Your task to perform on an android device: Go to eBay Image 0: 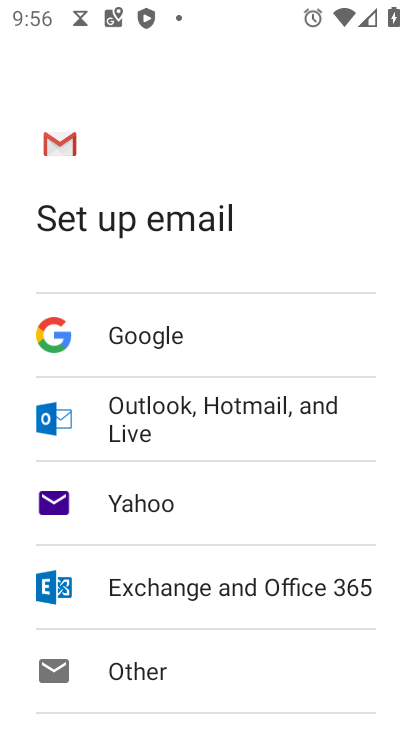
Step 0: press back button
Your task to perform on an android device: Go to eBay Image 1: 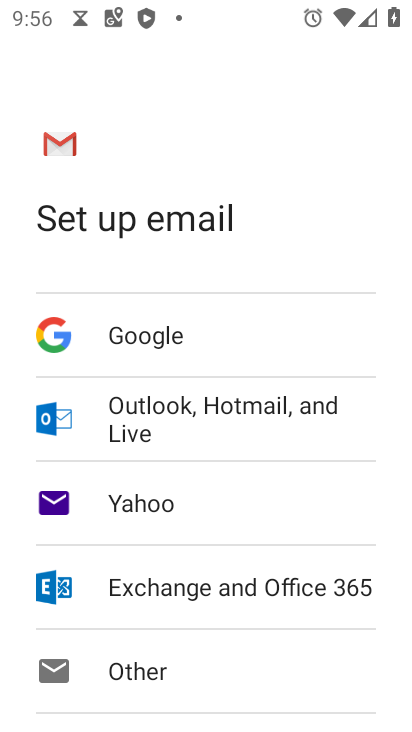
Step 1: press back button
Your task to perform on an android device: Go to eBay Image 2: 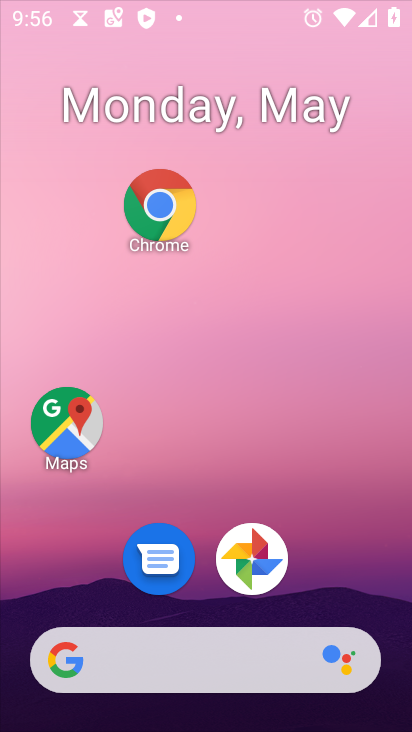
Step 2: press back button
Your task to perform on an android device: Go to eBay Image 3: 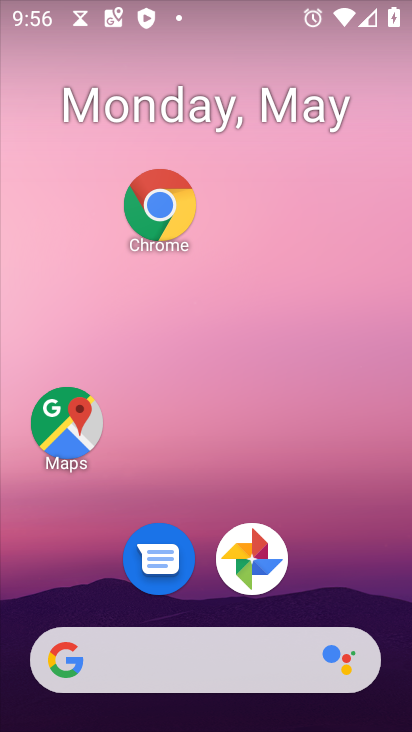
Step 3: press home button
Your task to perform on an android device: Go to eBay Image 4: 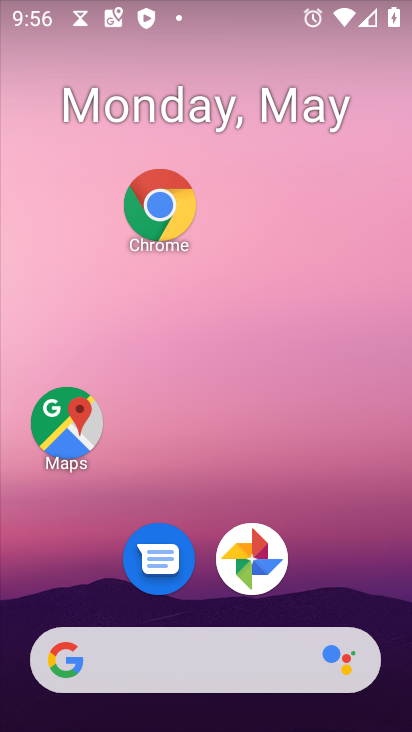
Step 4: drag from (289, 681) to (150, 51)
Your task to perform on an android device: Go to eBay Image 5: 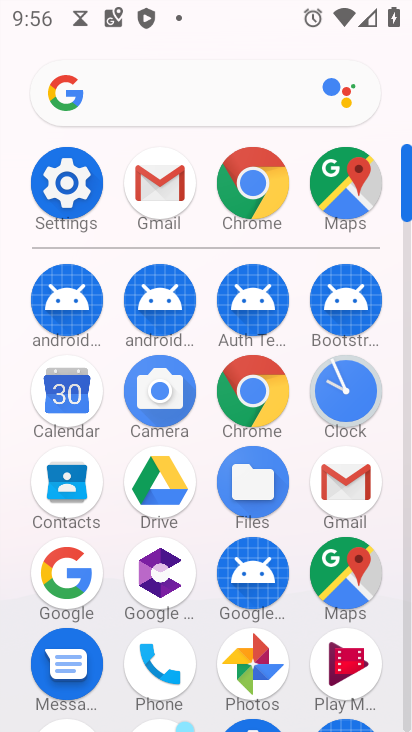
Step 5: click (257, 170)
Your task to perform on an android device: Go to eBay Image 6: 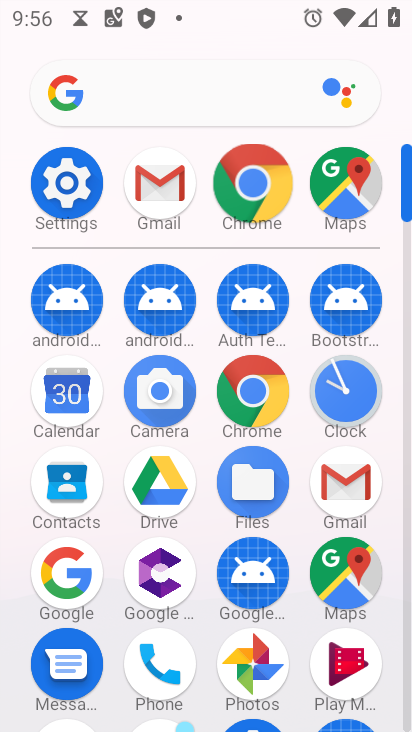
Step 6: click (257, 170)
Your task to perform on an android device: Go to eBay Image 7: 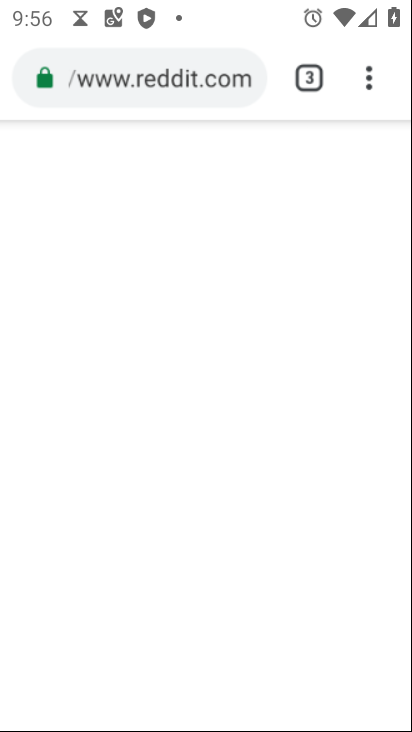
Step 7: click (257, 170)
Your task to perform on an android device: Go to eBay Image 8: 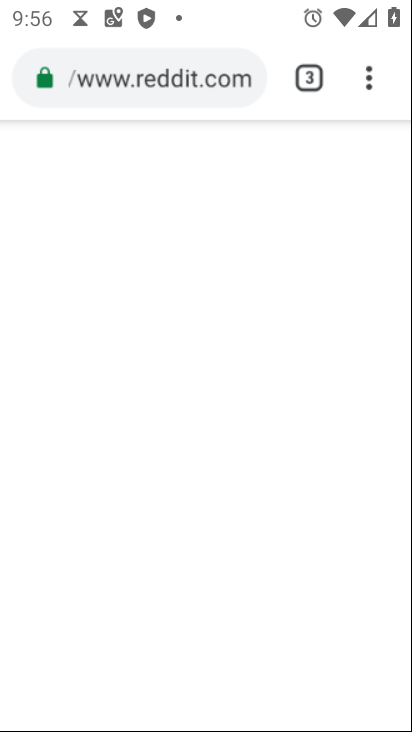
Step 8: click (257, 171)
Your task to perform on an android device: Go to eBay Image 9: 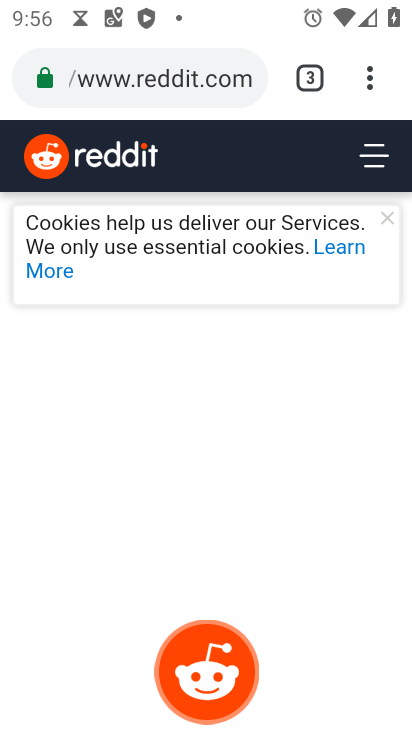
Step 9: task complete